Your task to perform on an android device: What's the weather going to be this weekend? Image 0: 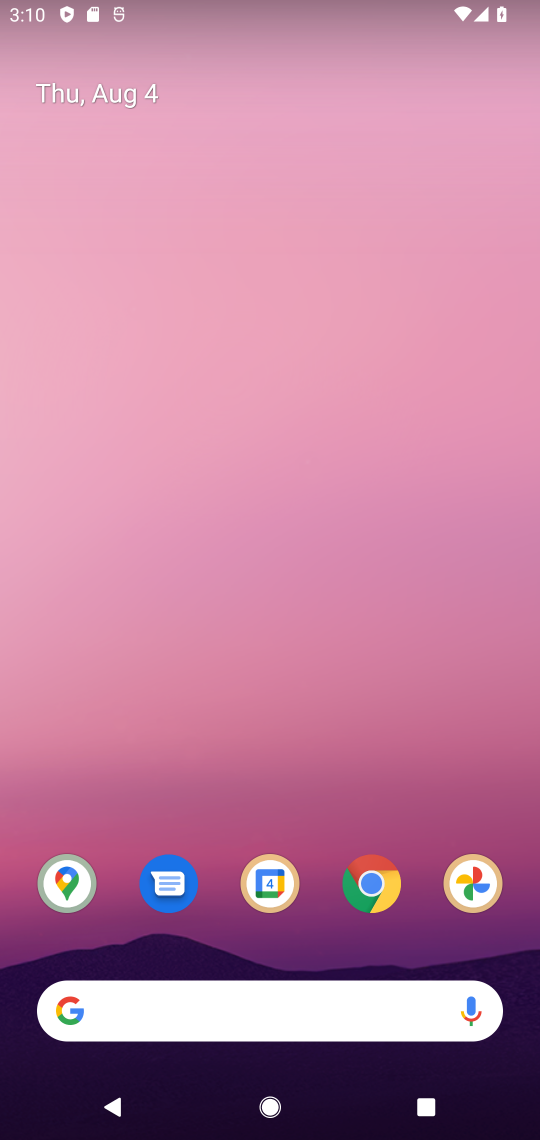
Step 0: drag from (473, 813) to (232, 35)
Your task to perform on an android device: What's the weather going to be this weekend? Image 1: 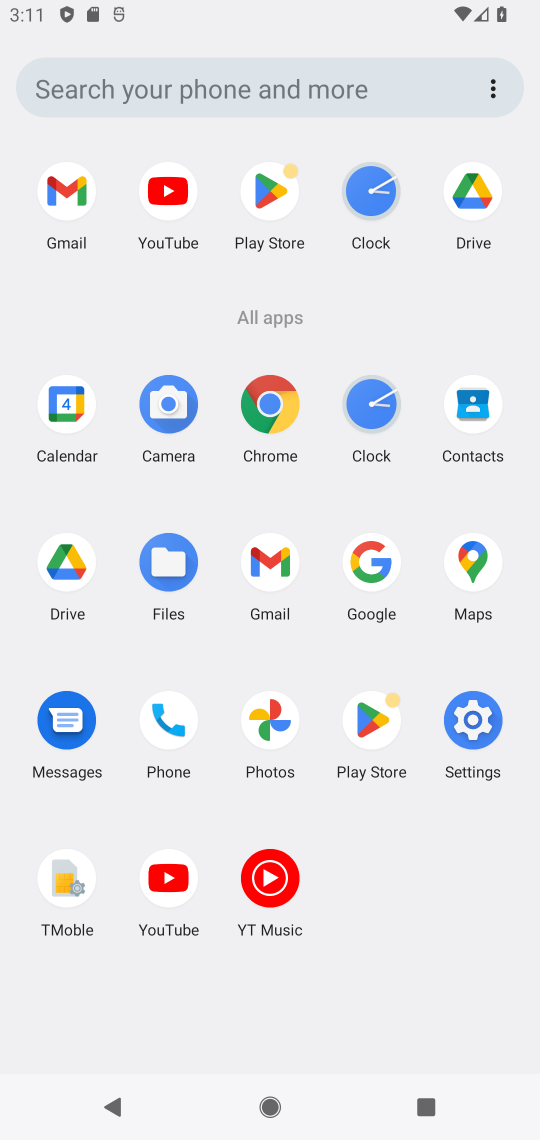
Step 1: click (391, 548)
Your task to perform on an android device: What's the weather going to be this weekend? Image 2: 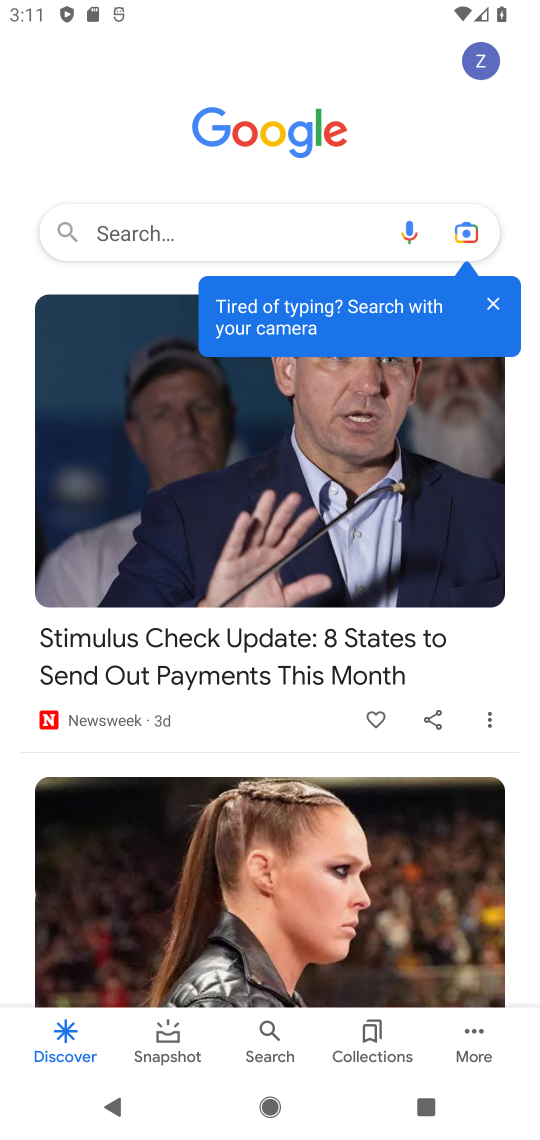
Step 2: click (152, 228)
Your task to perform on an android device: What's the weather going to be this weekend? Image 3: 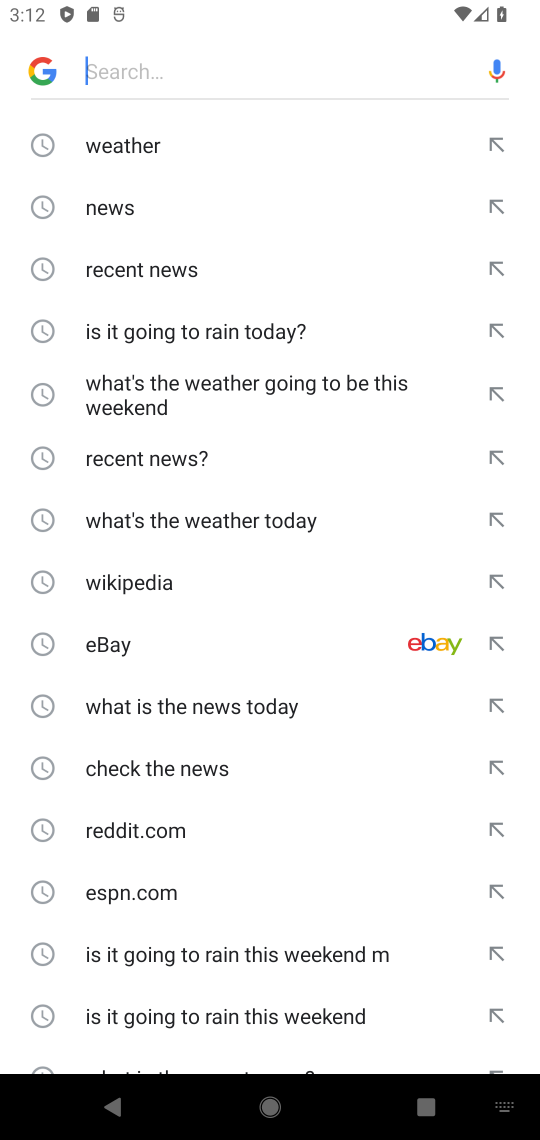
Step 3: click (205, 403)
Your task to perform on an android device: What's the weather going to be this weekend? Image 4: 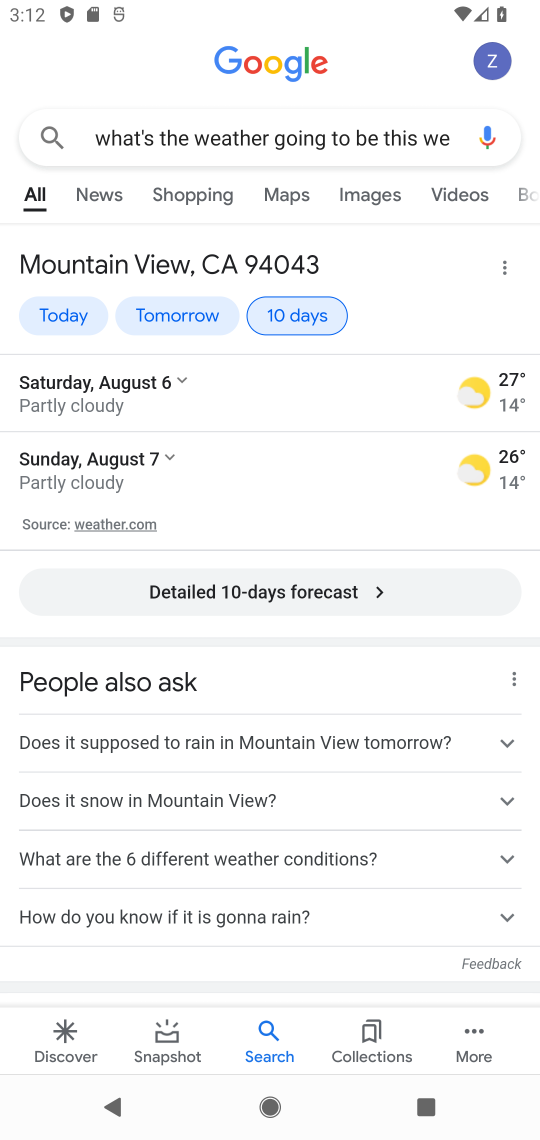
Step 4: task complete